Your task to perform on an android device: Go to notification settings Image 0: 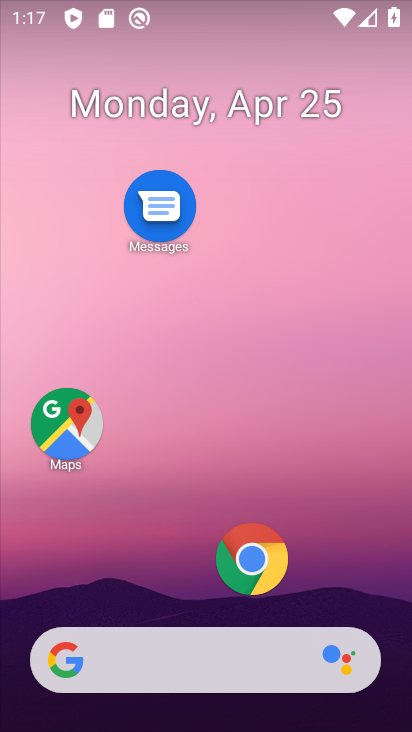
Step 0: drag from (172, 434) to (188, 119)
Your task to perform on an android device: Go to notification settings Image 1: 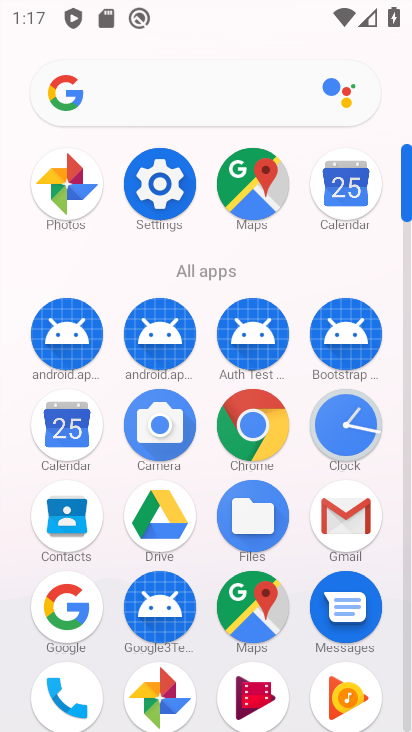
Step 1: click (157, 185)
Your task to perform on an android device: Go to notification settings Image 2: 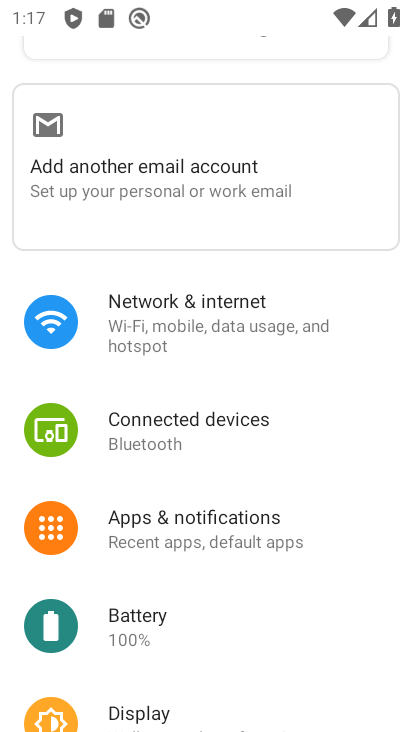
Step 2: click (217, 520)
Your task to perform on an android device: Go to notification settings Image 3: 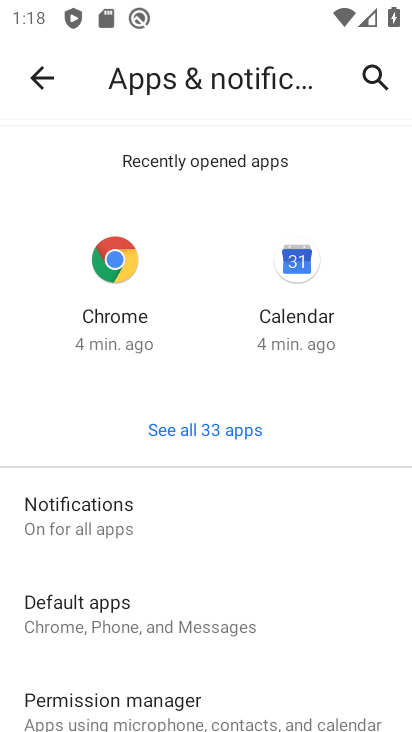
Step 3: task complete